Your task to perform on an android device: Show me recent news Image 0: 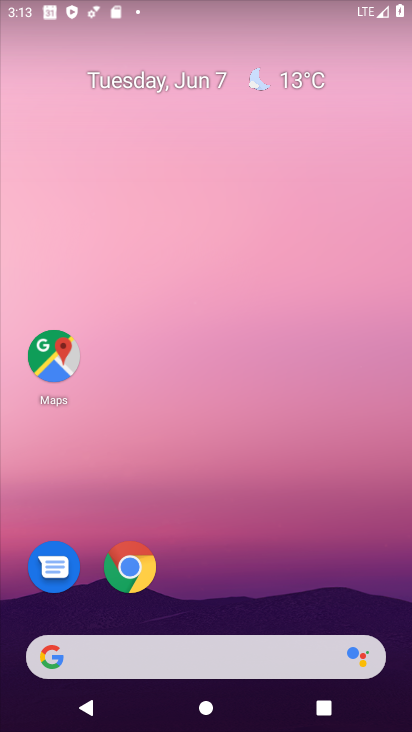
Step 0: click (175, 654)
Your task to perform on an android device: Show me recent news Image 1: 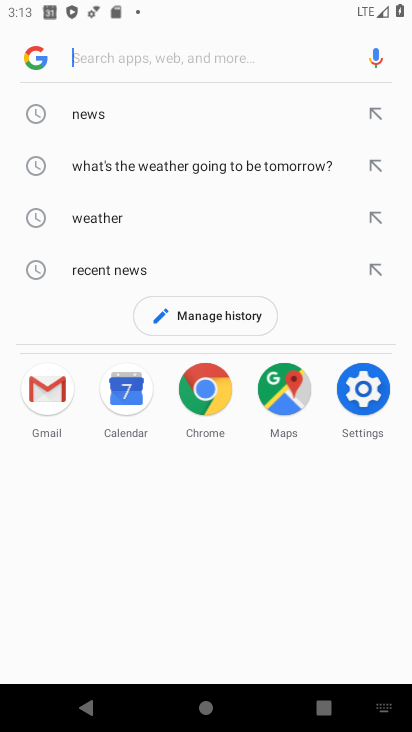
Step 1: click (101, 263)
Your task to perform on an android device: Show me recent news Image 2: 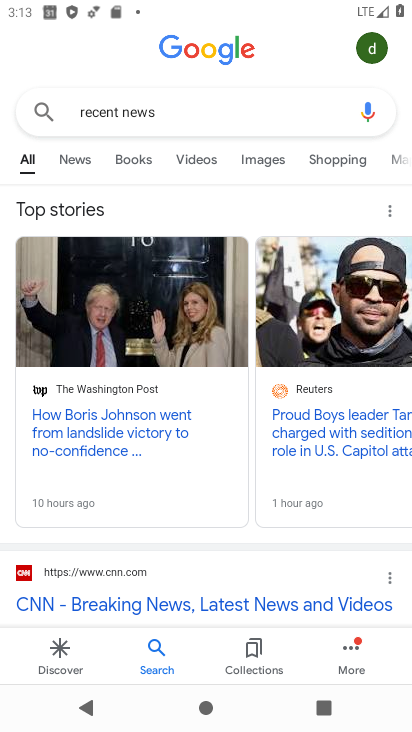
Step 2: task complete